Your task to perform on an android device: turn on showing notifications on the lock screen Image 0: 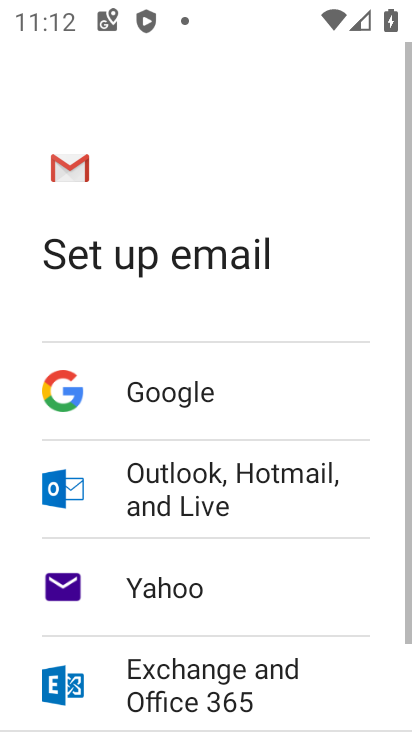
Step 0: press back button
Your task to perform on an android device: turn on showing notifications on the lock screen Image 1: 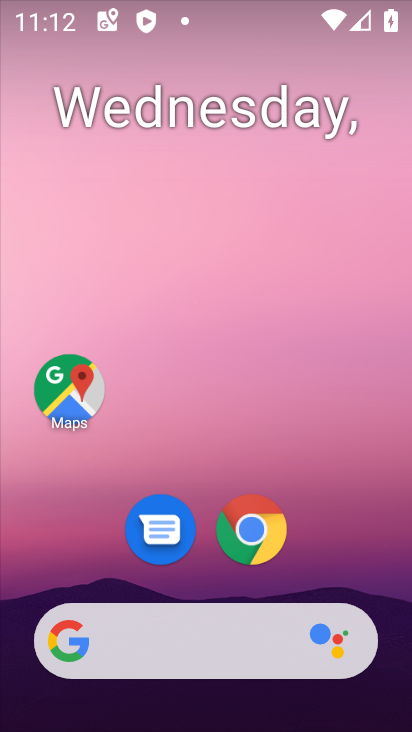
Step 1: drag from (207, 584) to (128, 37)
Your task to perform on an android device: turn on showing notifications on the lock screen Image 2: 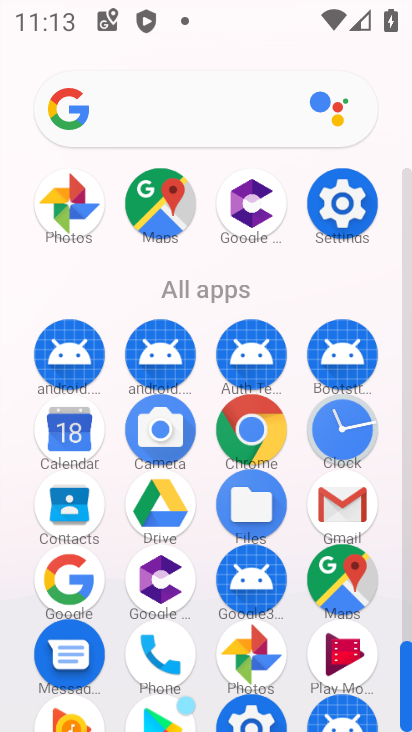
Step 2: drag from (218, 584) to (176, 127)
Your task to perform on an android device: turn on showing notifications on the lock screen Image 3: 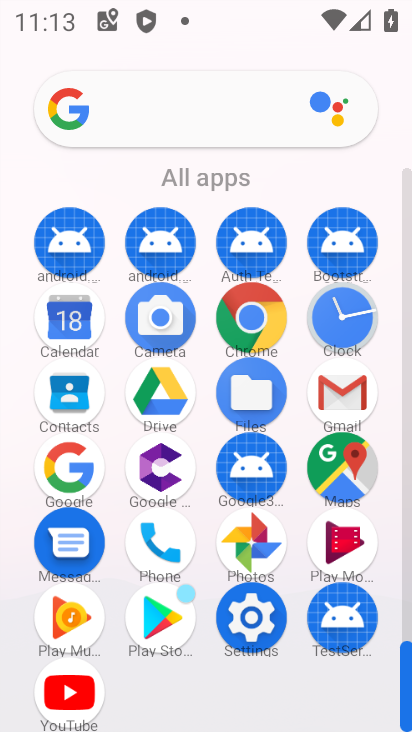
Step 3: click (241, 622)
Your task to perform on an android device: turn on showing notifications on the lock screen Image 4: 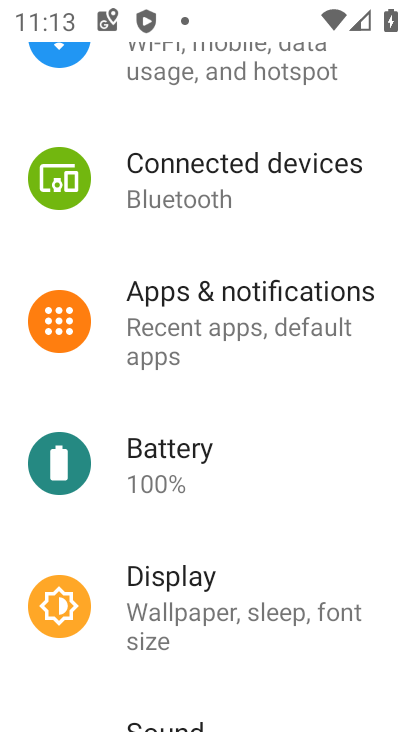
Step 4: click (196, 340)
Your task to perform on an android device: turn on showing notifications on the lock screen Image 5: 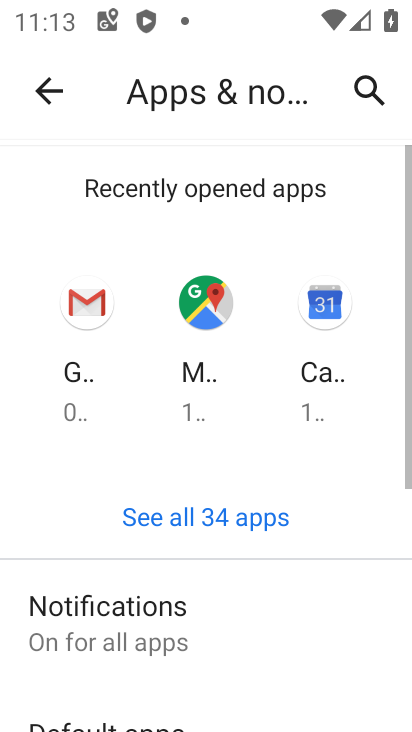
Step 5: click (117, 597)
Your task to perform on an android device: turn on showing notifications on the lock screen Image 6: 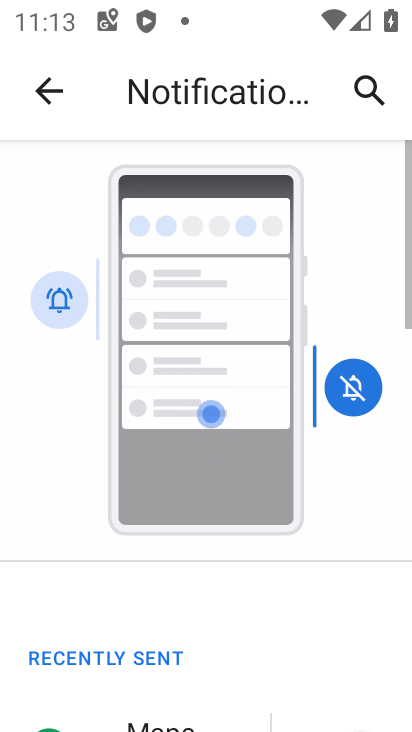
Step 6: drag from (129, 591) to (52, 156)
Your task to perform on an android device: turn on showing notifications on the lock screen Image 7: 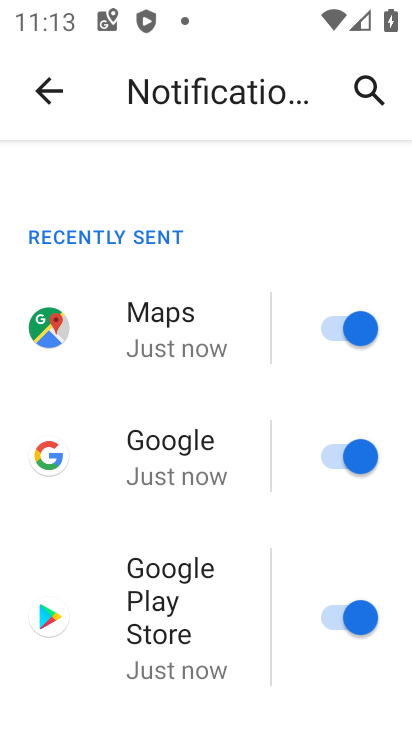
Step 7: drag from (144, 474) to (102, 121)
Your task to perform on an android device: turn on showing notifications on the lock screen Image 8: 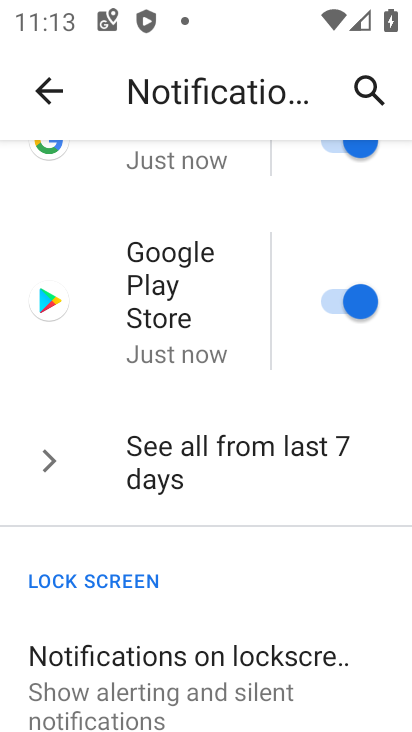
Step 8: click (208, 675)
Your task to perform on an android device: turn on showing notifications on the lock screen Image 9: 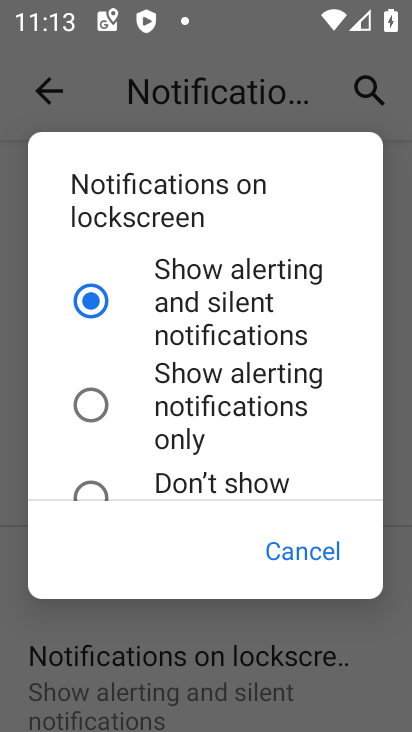
Step 9: task complete